Your task to perform on an android device: install app "YouTube Kids" Image 0: 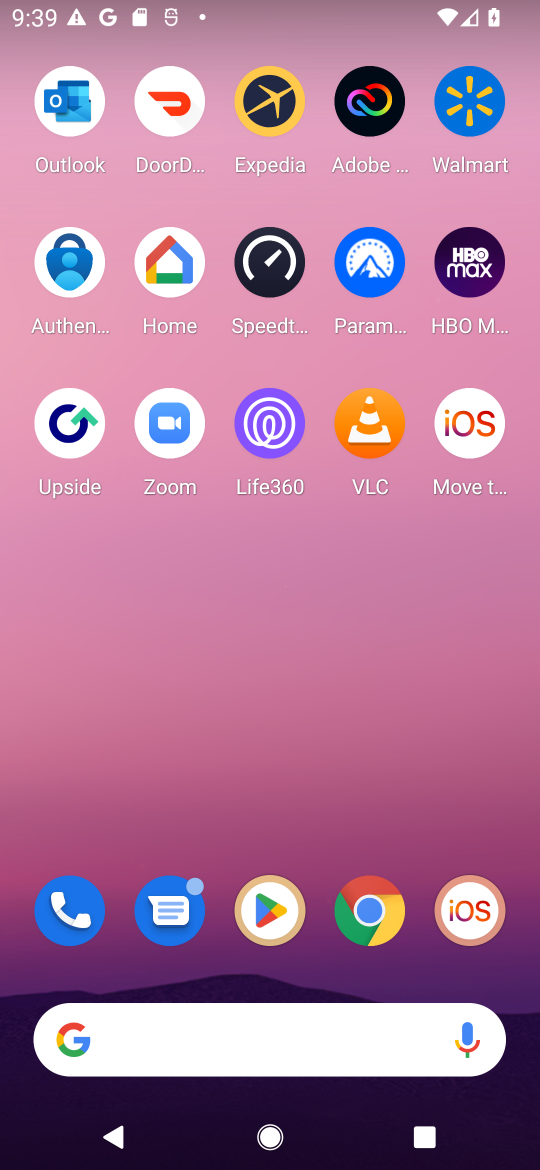
Step 0: click (252, 911)
Your task to perform on an android device: install app "YouTube Kids" Image 1: 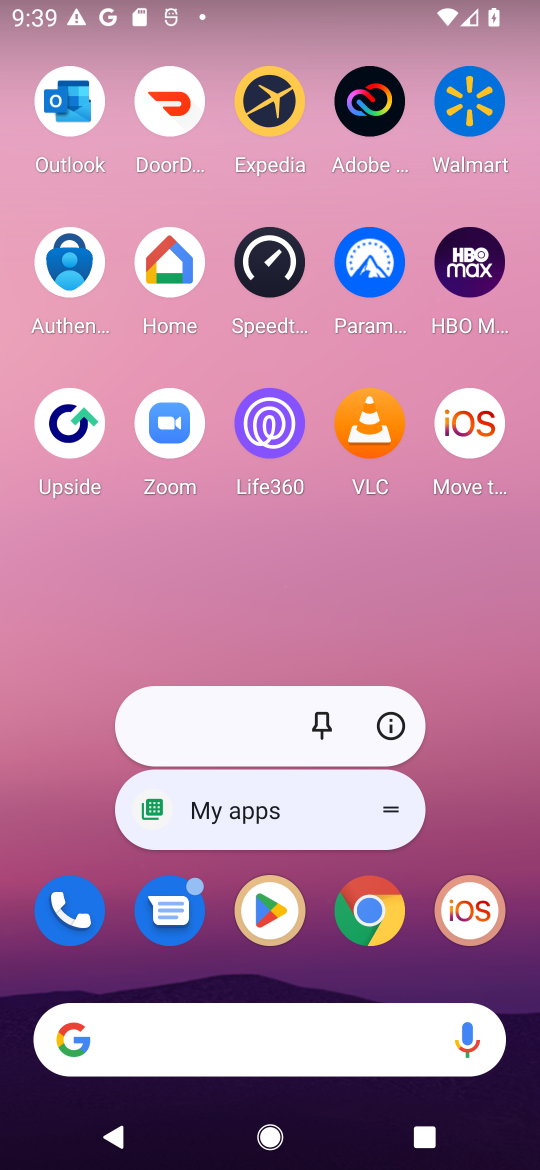
Step 1: click (279, 909)
Your task to perform on an android device: install app "YouTube Kids" Image 2: 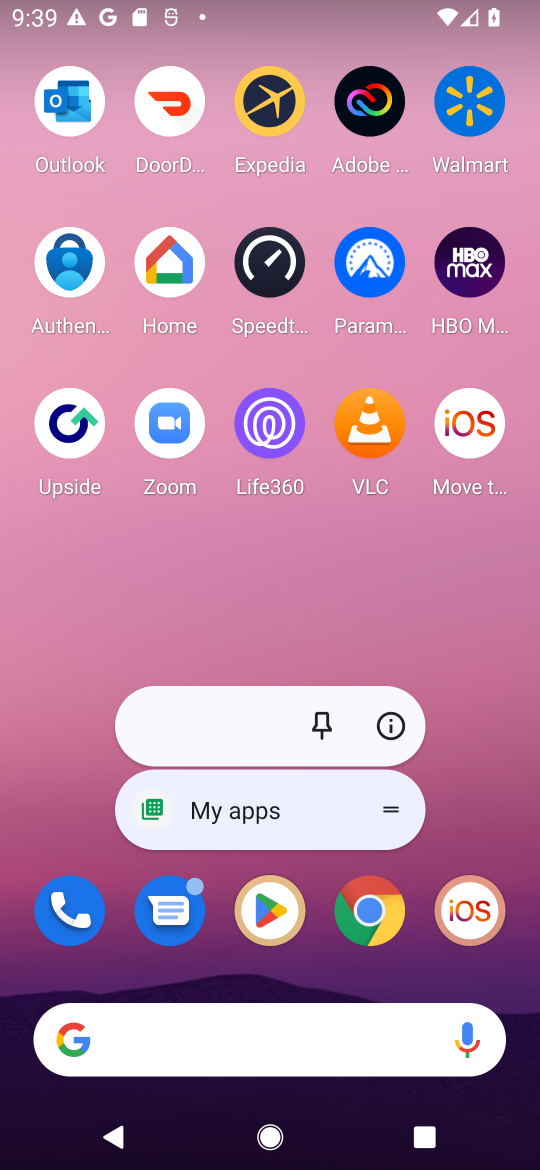
Step 2: click (250, 913)
Your task to perform on an android device: install app "YouTube Kids" Image 3: 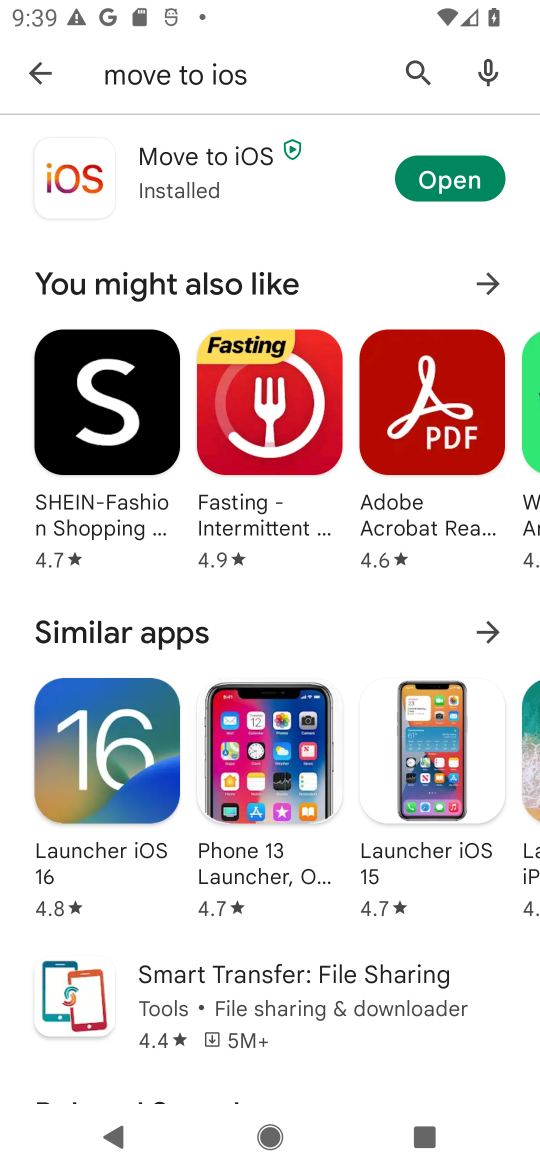
Step 3: click (428, 65)
Your task to perform on an android device: install app "YouTube Kids" Image 4: 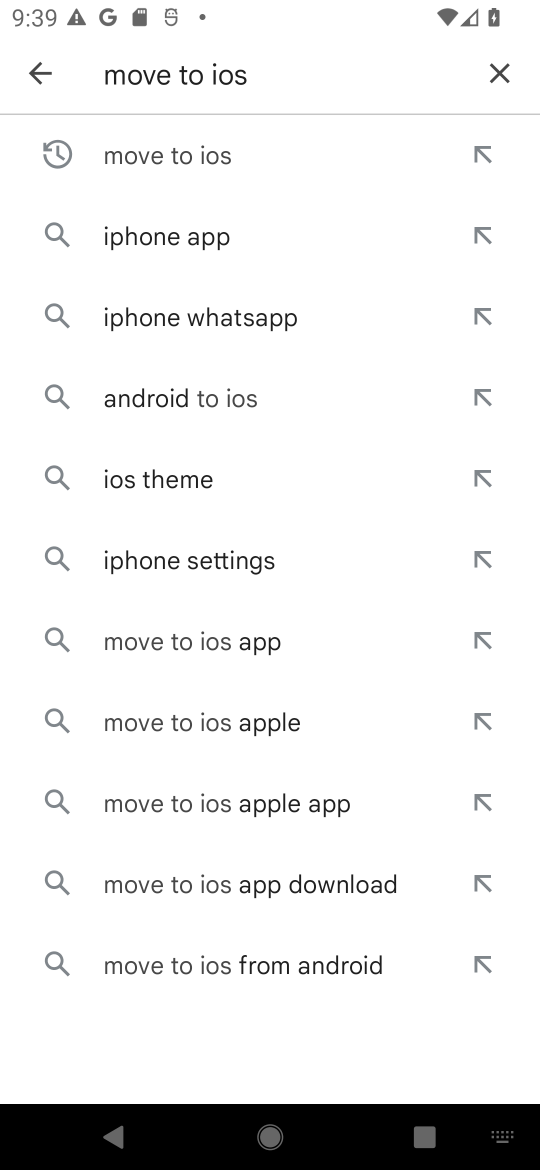
Step 4: click (503, 68)
Your task to perform on an android device: install app "YouTube Kids" Image 5: 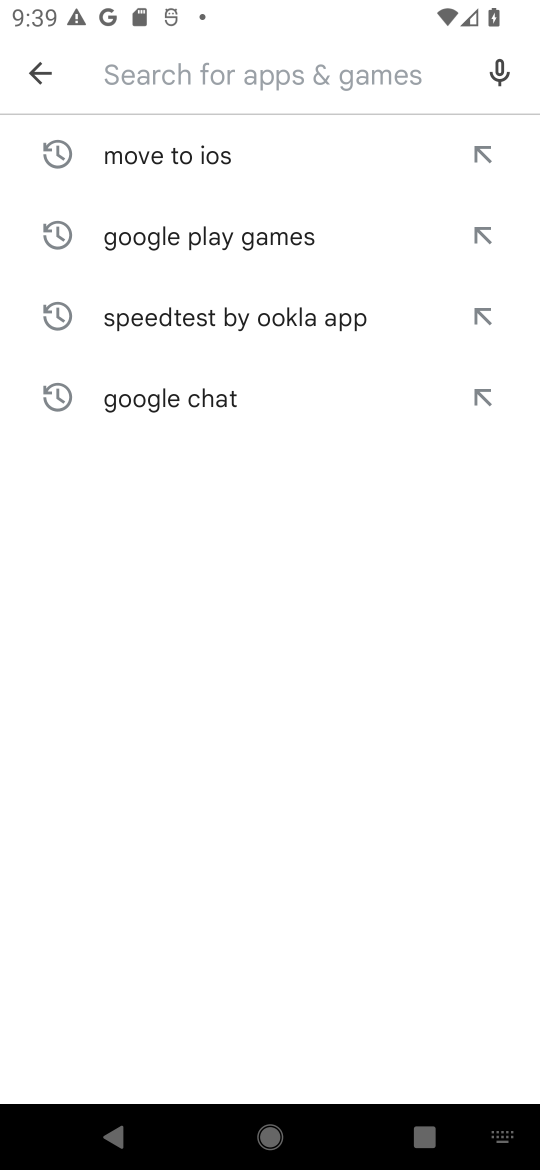
Step 5: type "YouTube Kids"
Your task to perform on an android device: install app "YouTube Kids" Image 6: 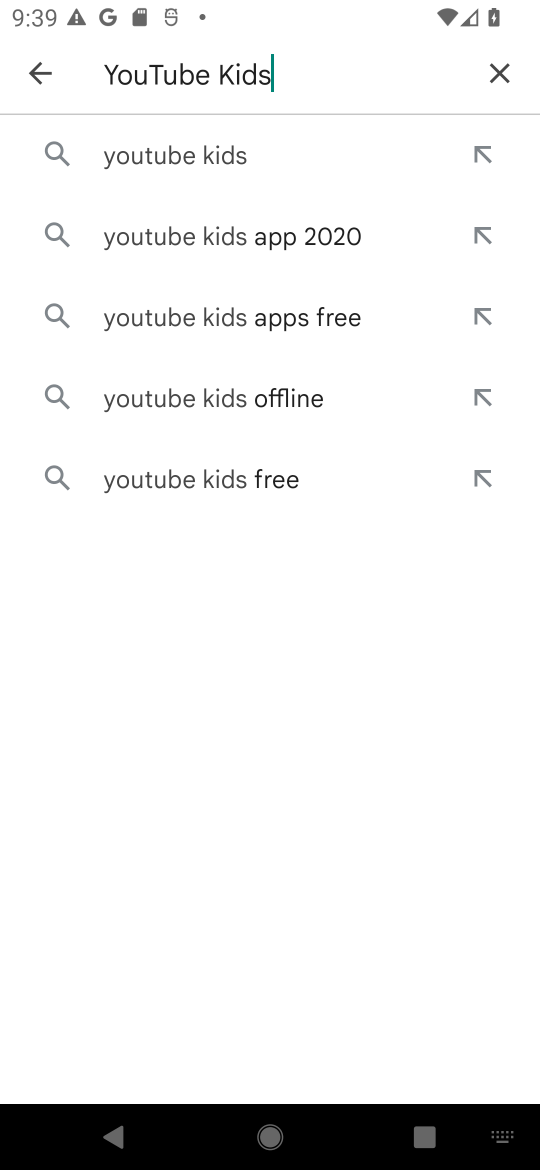
Step 6: click (180, 172)
Your task to perform on an android device: install app "YouTube Kids" Image 7: 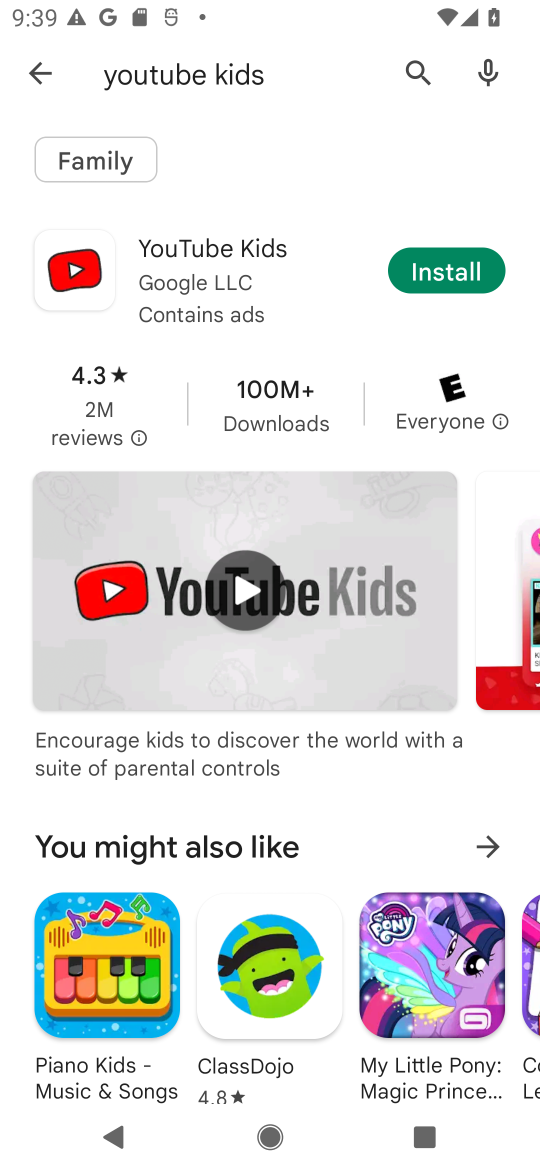
Step 7: click (454, 275)
Your task to perform on an android device: install app "YouTube Kids" Image 8: 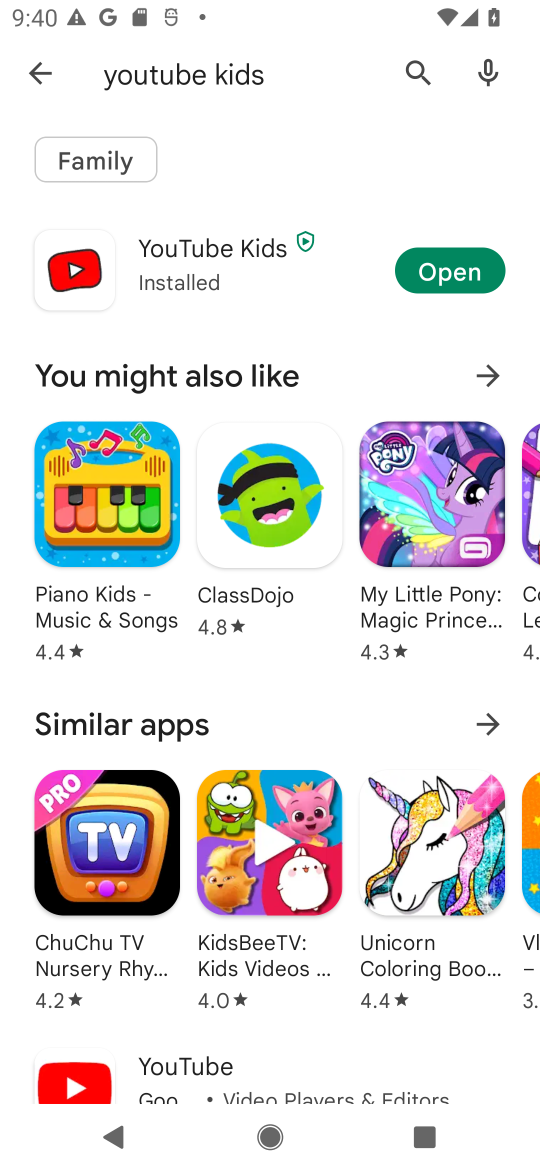
Step 8: task complete